Your task to perform on an android device: toggle location history Image 0: 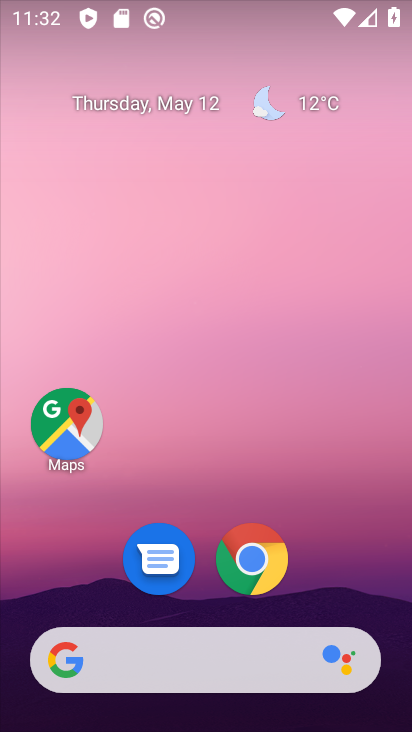
Step 0: drag from (219, 220) to (250, 134)
Your task to perform on an android device: toggle location history Image 1: 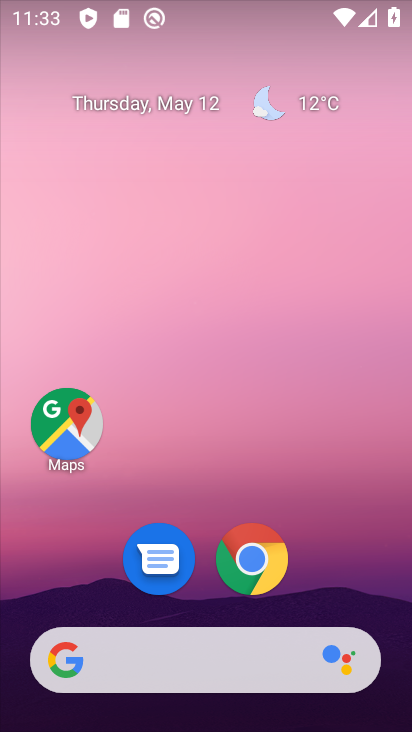
Step 1: drag from (314, 618) to (406, 172)
Your task to perform on an android device: toggle location history Image 2: 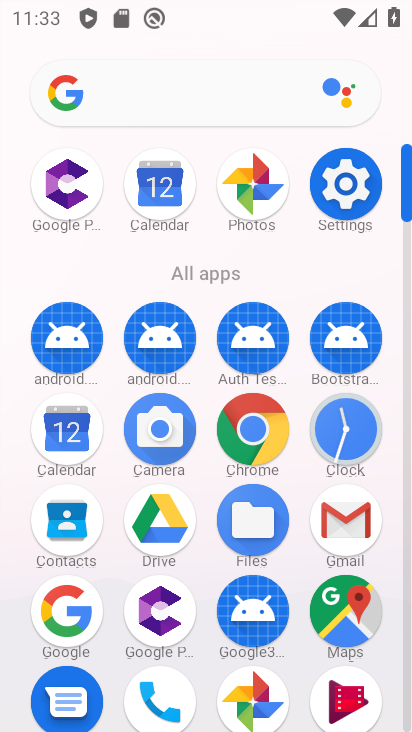
Step 2: drag from (146, 663) to (227, 360)
Your task to perform on an android device: toggle location history Image 3: 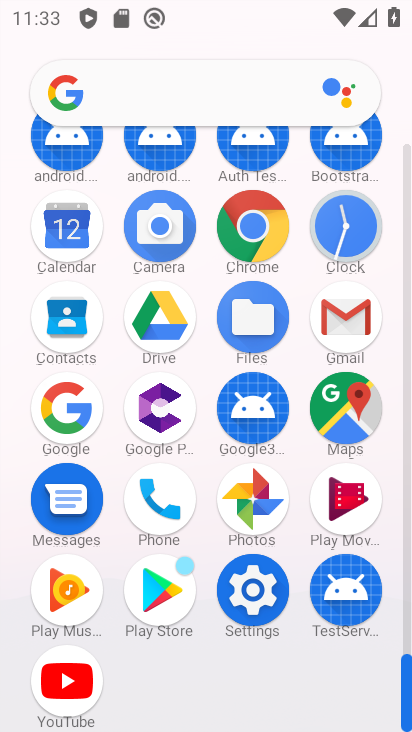
Step 3: click (257, 590)
Your task to perform on an android device: toggle location history Image 4: 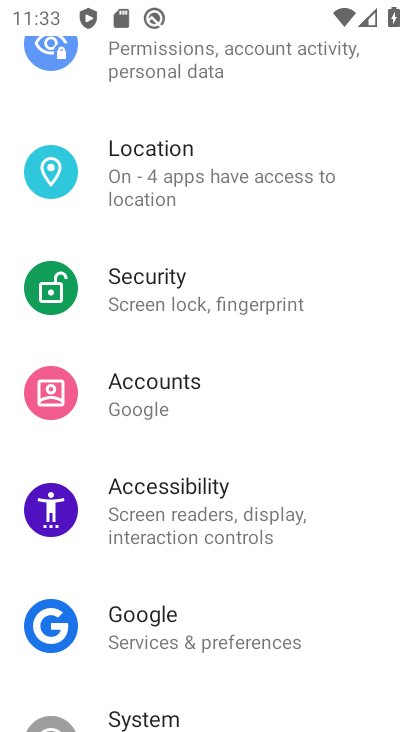
Step 4: click (194, 188)
Your task to perform on an android device: toggle location history Image 5: 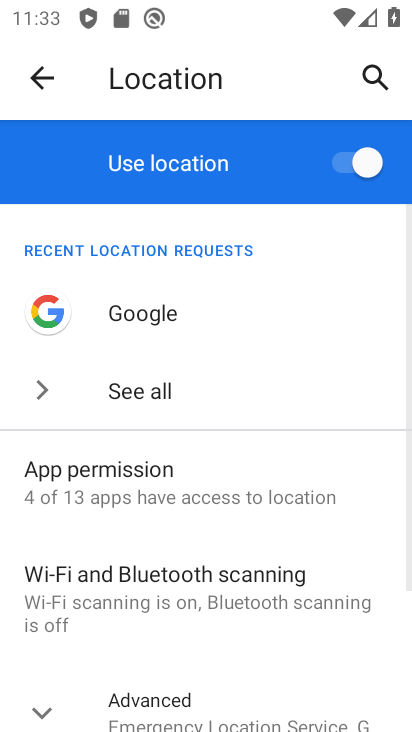
Step 5: drag from (202, 663) to (284, 409)
Your task to perform on an android device: toggle location history Image 6: 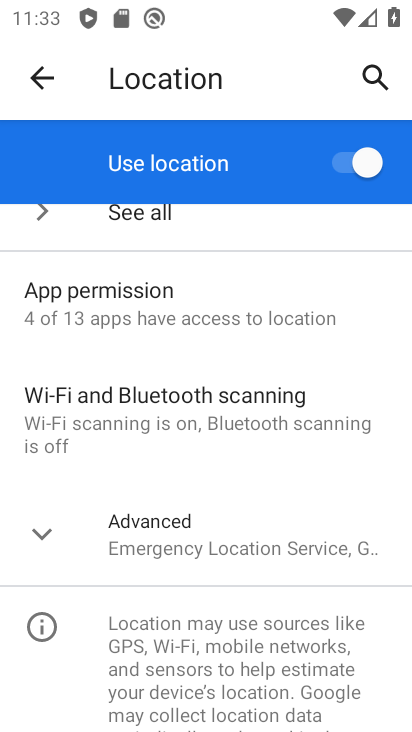
Step 6: click (205, 562)
Your task to perform on an android device: toggle location history Image 7: 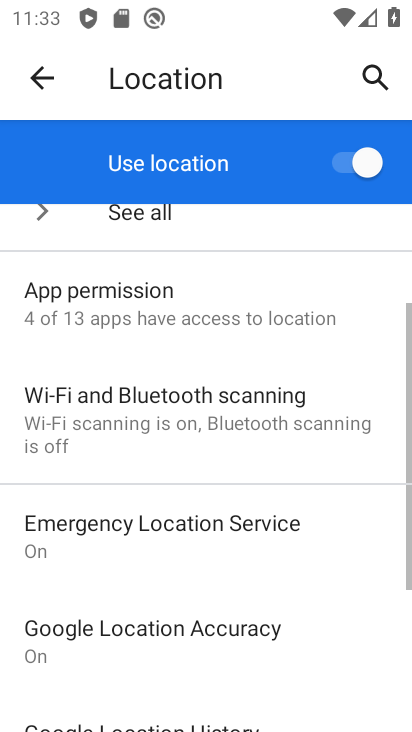
Step 7: drag from (170, 655) to (264, 379)
Your task to perform on an android device: toggle location history Image 8: 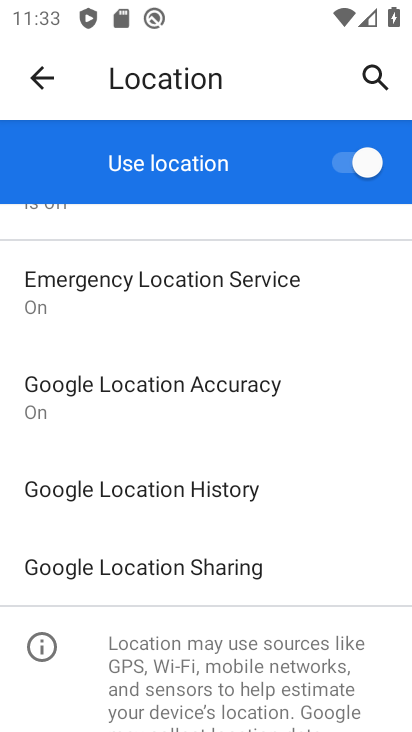
Step 8: click (233, 499)
Your task to perform on an android device: toggle location history Image 9: 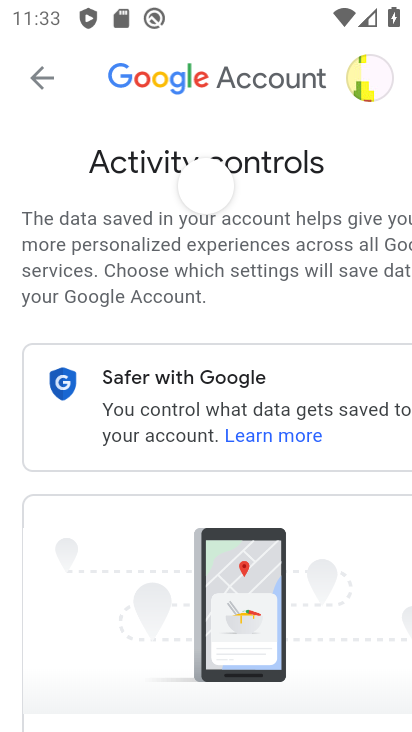
Step 9: drag from (177, 620) to (346, 195)
Your task to perform on an android device: toggle location history Image 10: 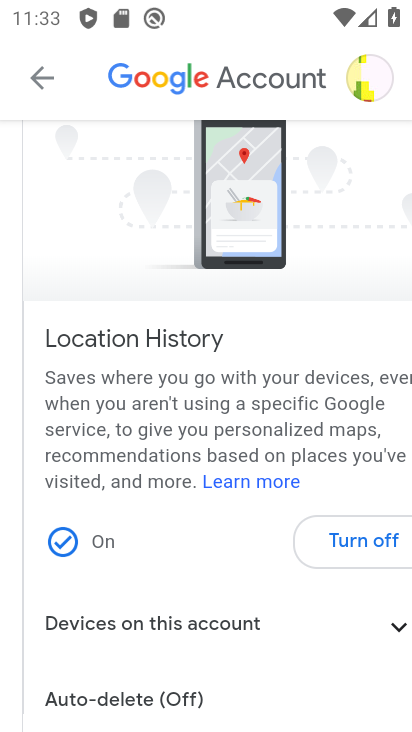
Step 10: click (387, 556)
Your task to perform on an android device: toggle location history Image 11: 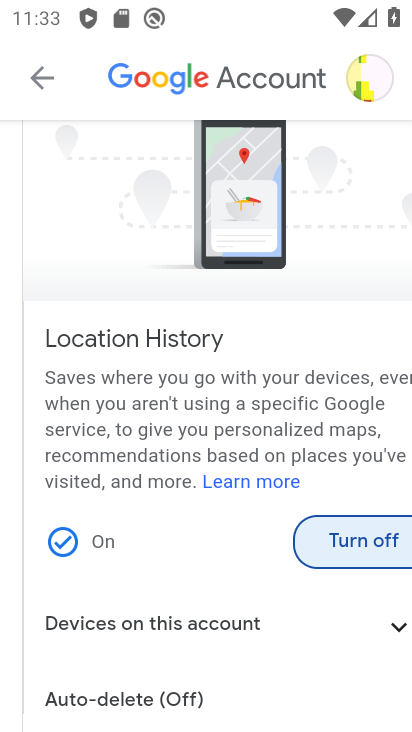
Step 11: click (357, 551)
Your task to perform on an android device: toggle location history Image 12: 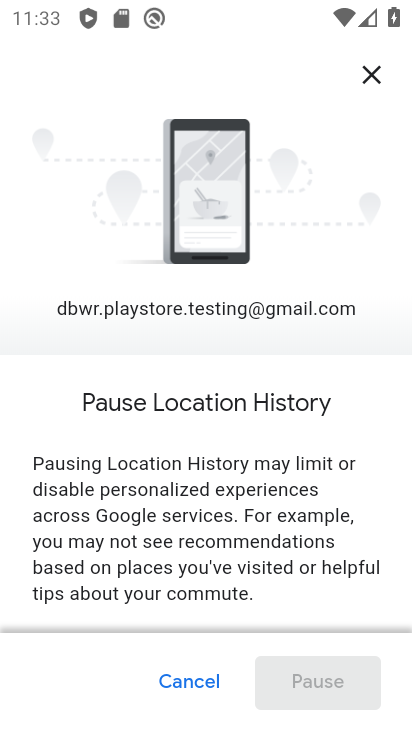
Step 12: drag from (146, 622) to (376, 243)
Your task to perform on an android device: toggle location history Image 13: 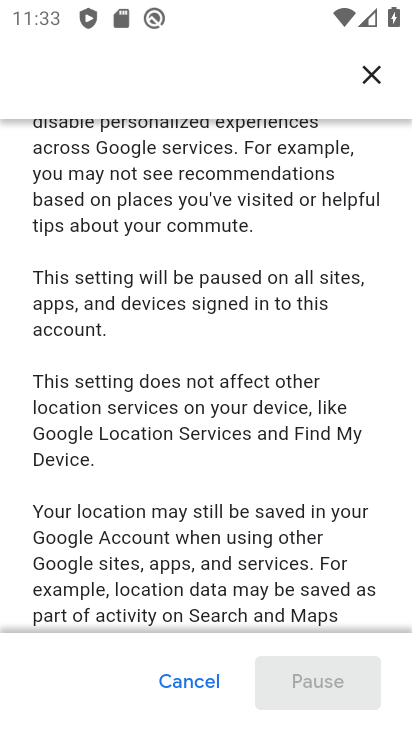
Step 13: drag from (201, 645) to (323, 226)
Your task to perform on an android device: toggle location history Image 14: 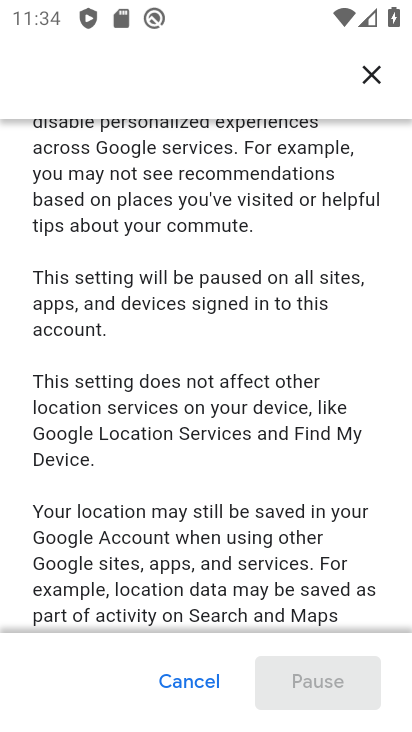
Step 14: drag from (200, 578) to (339, 153)
Your task to perform on an android device: toggle location history Image 15: 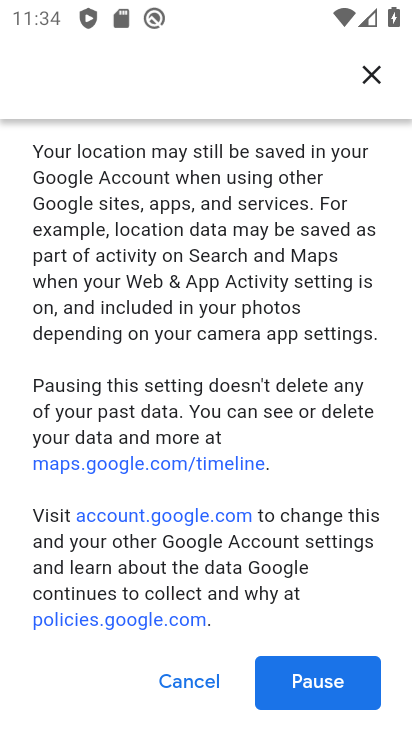
Step 15: click (318, 687)
Your task to perform on an android device: toggle location history Image 16: 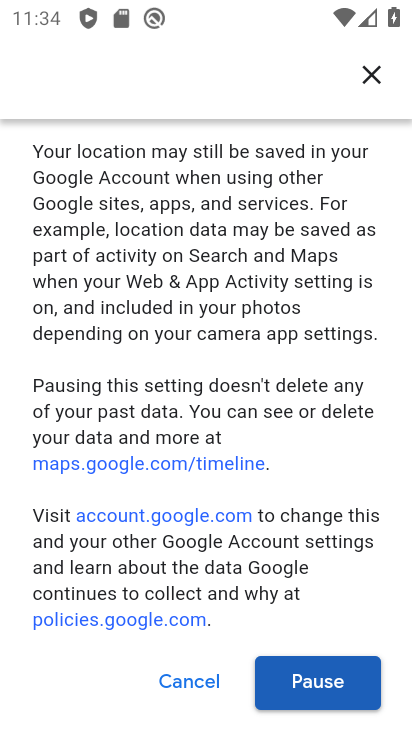
Step 16: click (318, 688)
Your task to perform on an android device: toggle location history Image 17: 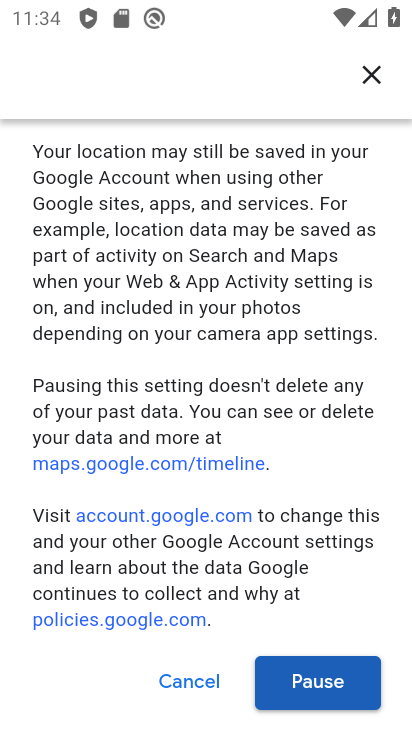
Step 17: click (318, 688)
Your task to perform on an android device: toggle location history Image 18: 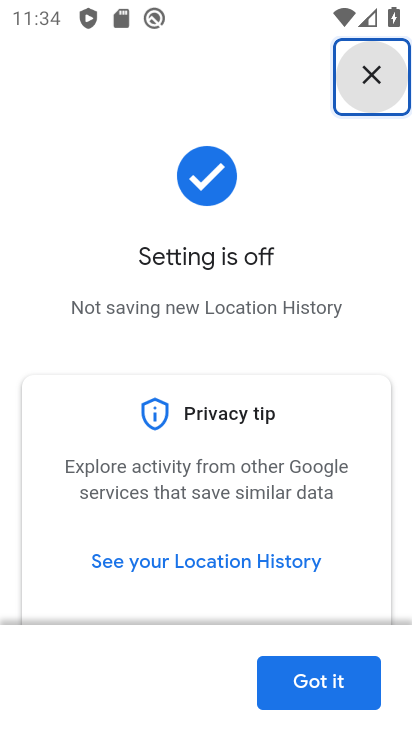
Step 18: click (329, 689)
Your task to perform on an android device: toggle location history Image 19: 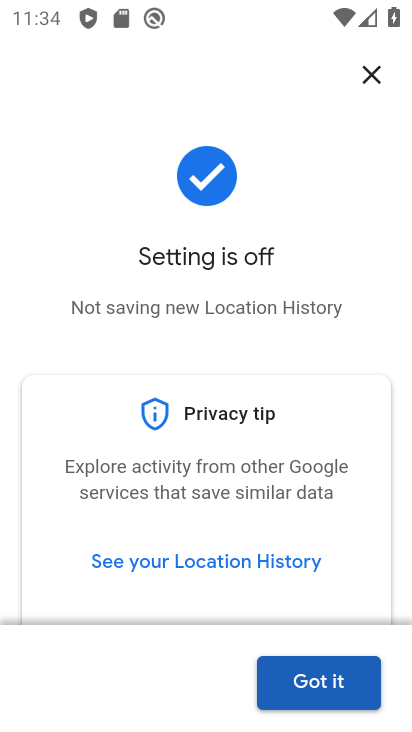
Step 19: click (341, 693)
Your task to perform on an android device: toggle location history Image 20: 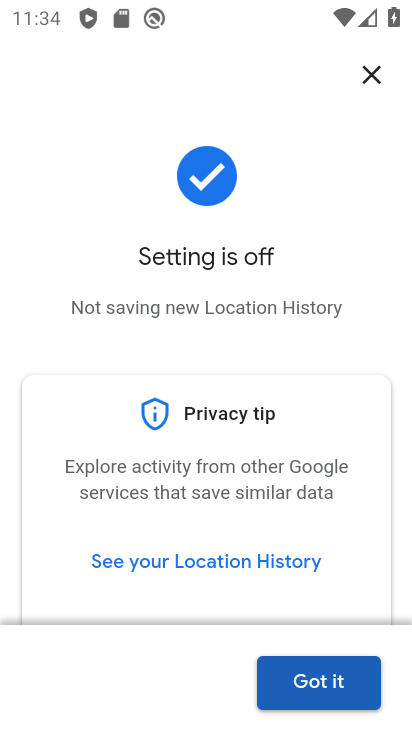
Step 20: click (341, 693)
Your task to perform on an android device: toggle location history Image 21: 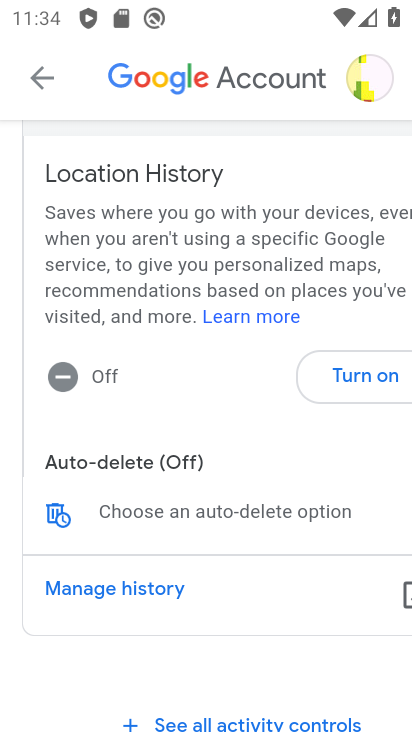
Step 21: task complete